Your task to perform on an android device: toggle wifi Image 0: 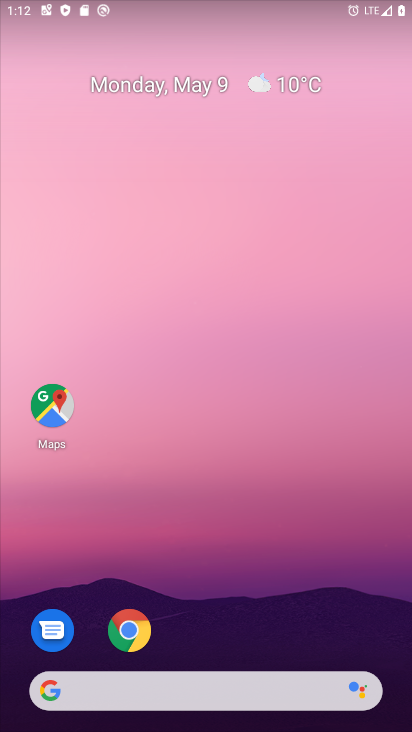
Step 0: drag from (290, 1) to (316, 589)
Your task to perform on an android device: toggle wifi Image 1: 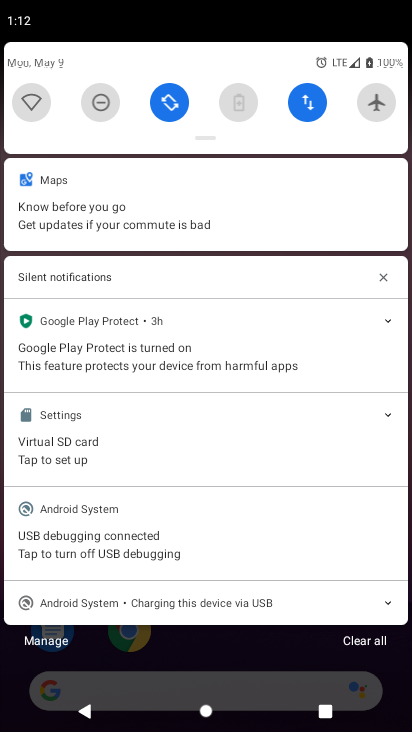
Step 1: click (25, 104)
Your task to perform on an android device: toggle wifi Image 2: 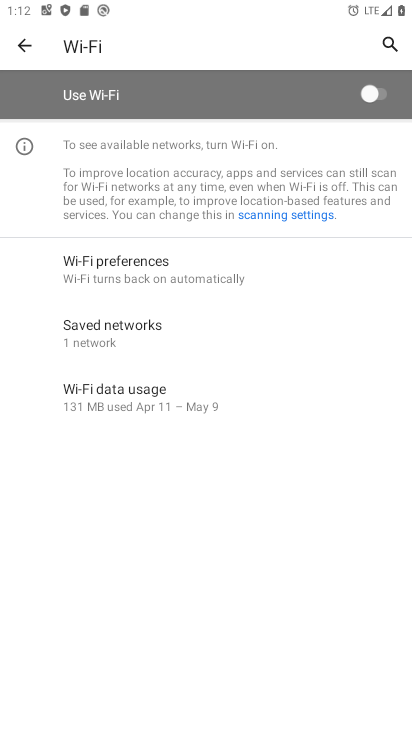
Step 2: click (360, 92)
Your task to perform on an android device: toggle wifi Image 3: 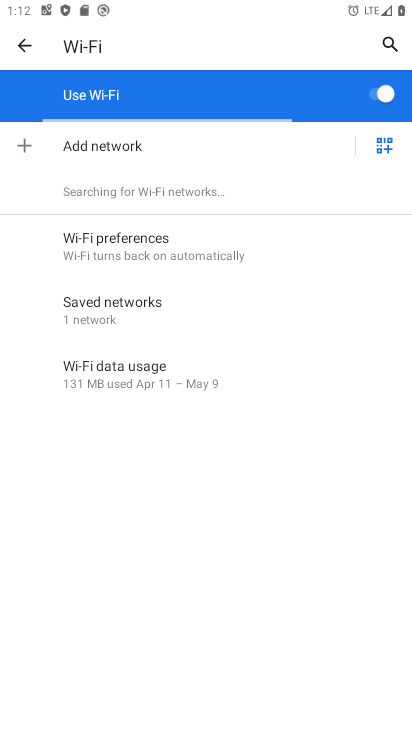
Step 3: task complete